Your task to perform on an android device: Clear all items from cart on target. Add "asus rog" to the cart on target Image 0: 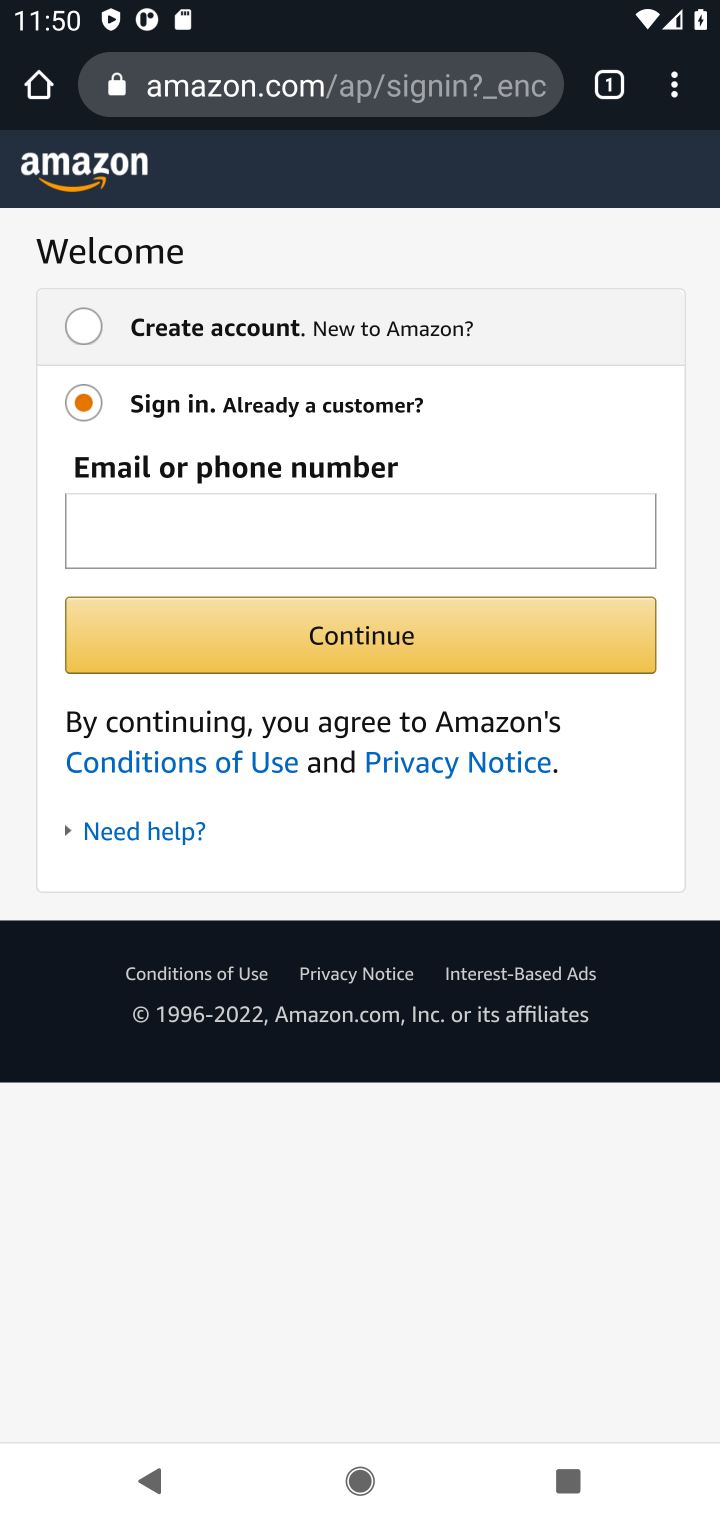
Step 0: click (291, 68)
Your task to perform on an android device: Clear all items from cart on target. Add "asus rog" to the cart on target Image 1: 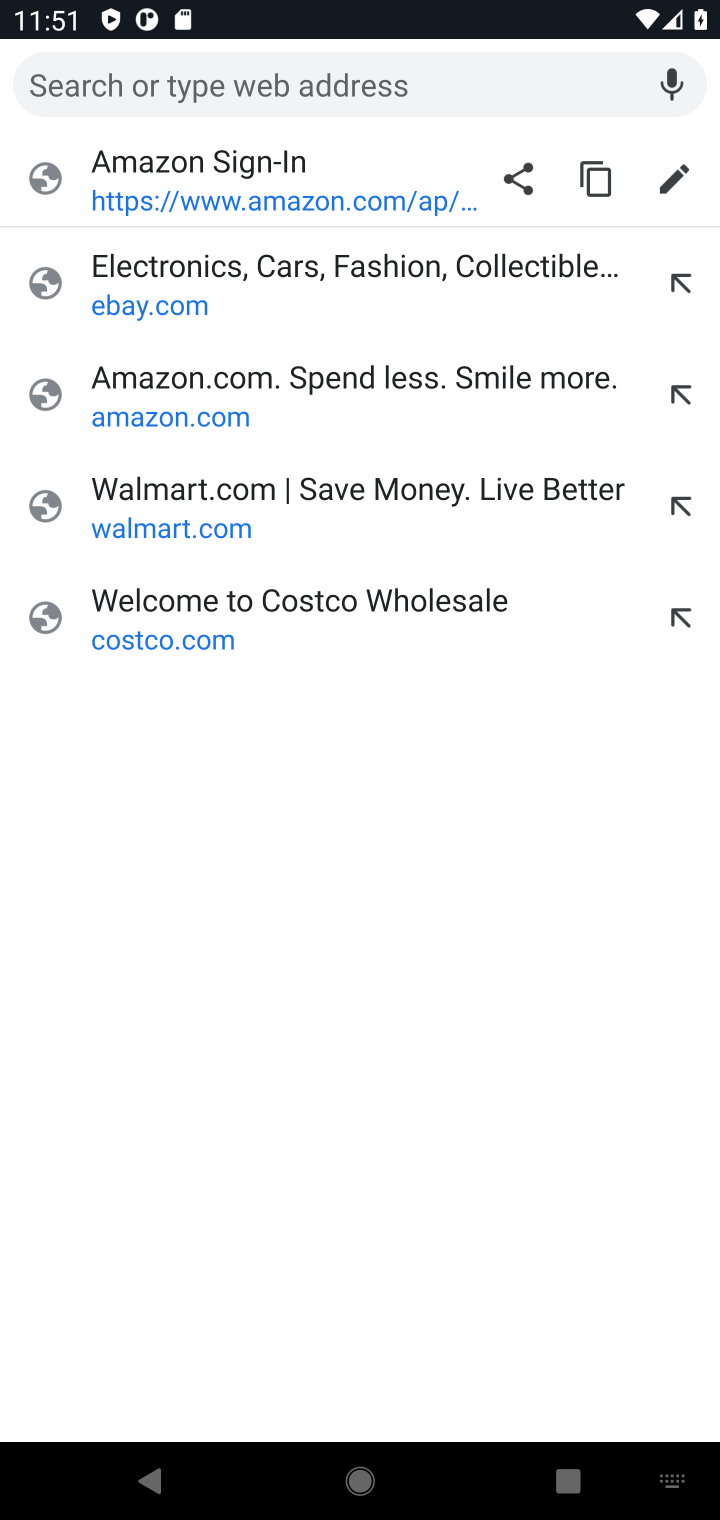
Step 1: type "target"
Your task to perform on an android device: Clear all items from cart on target. Add "asus rog" to the cart on target Image 2: 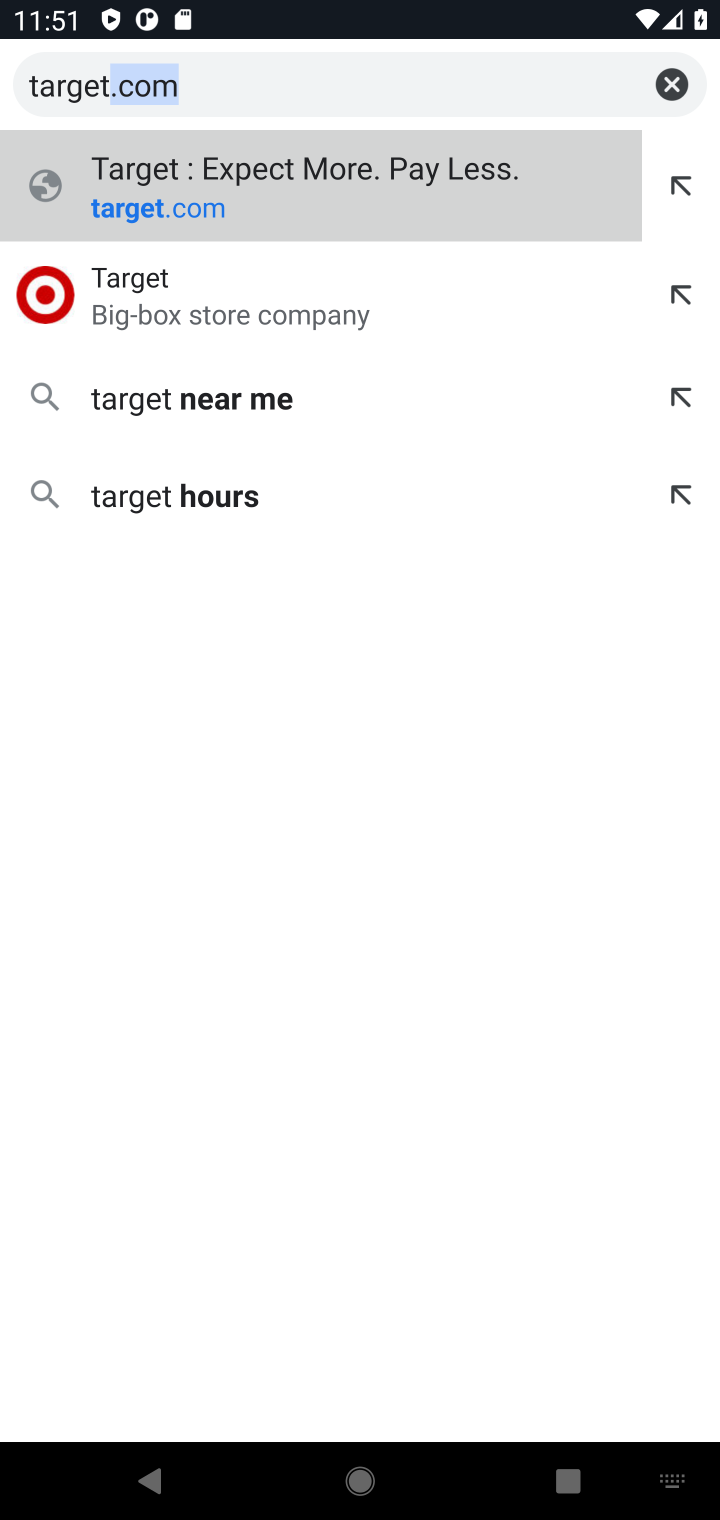
Step 2: click (470, 87)
Your task to perform on an android device: Clear all items from cart on target. Add "asus rog" to the cart on target Image 3: 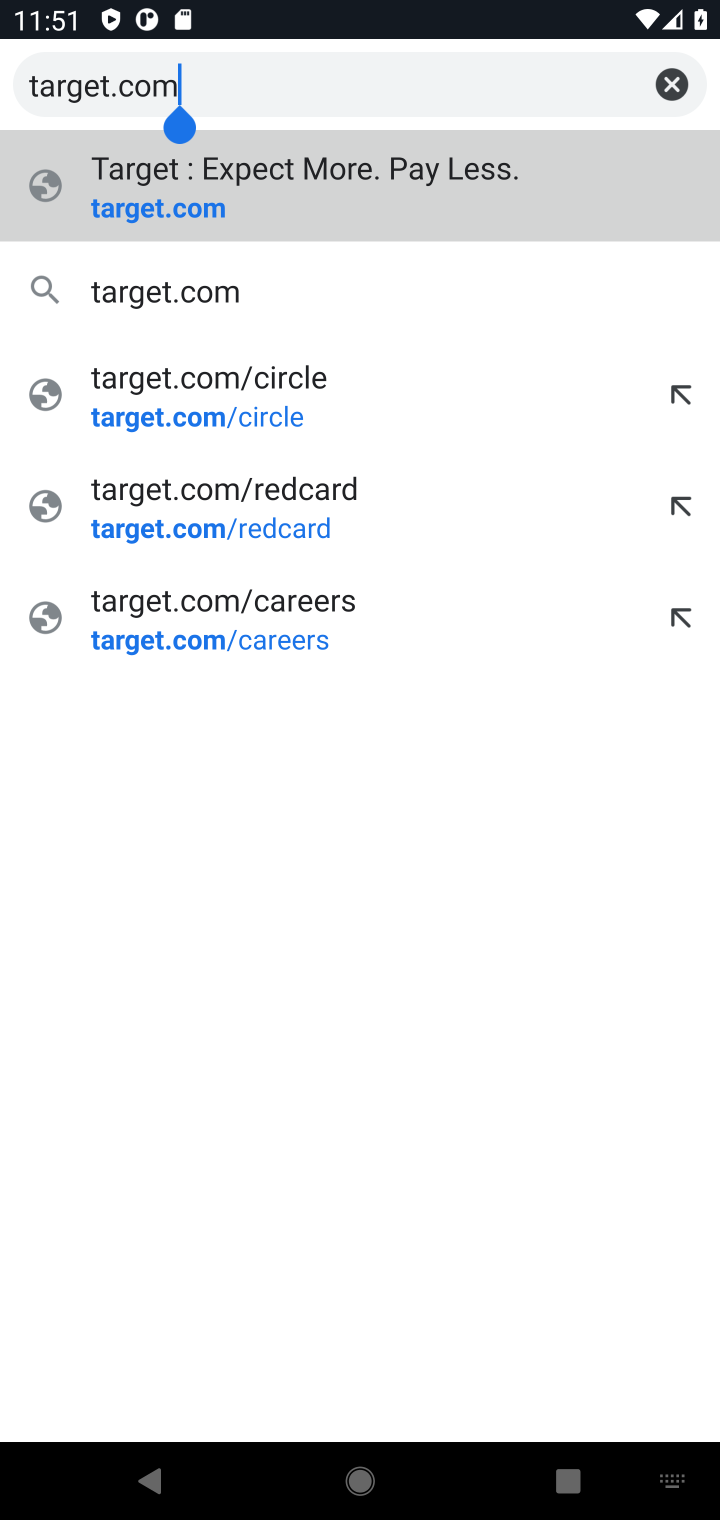
Step 3: click (217, 275)
Your task to perform on an android device: Clear all items from cart on target. Add "asus rog" to the cart on target Image 4: 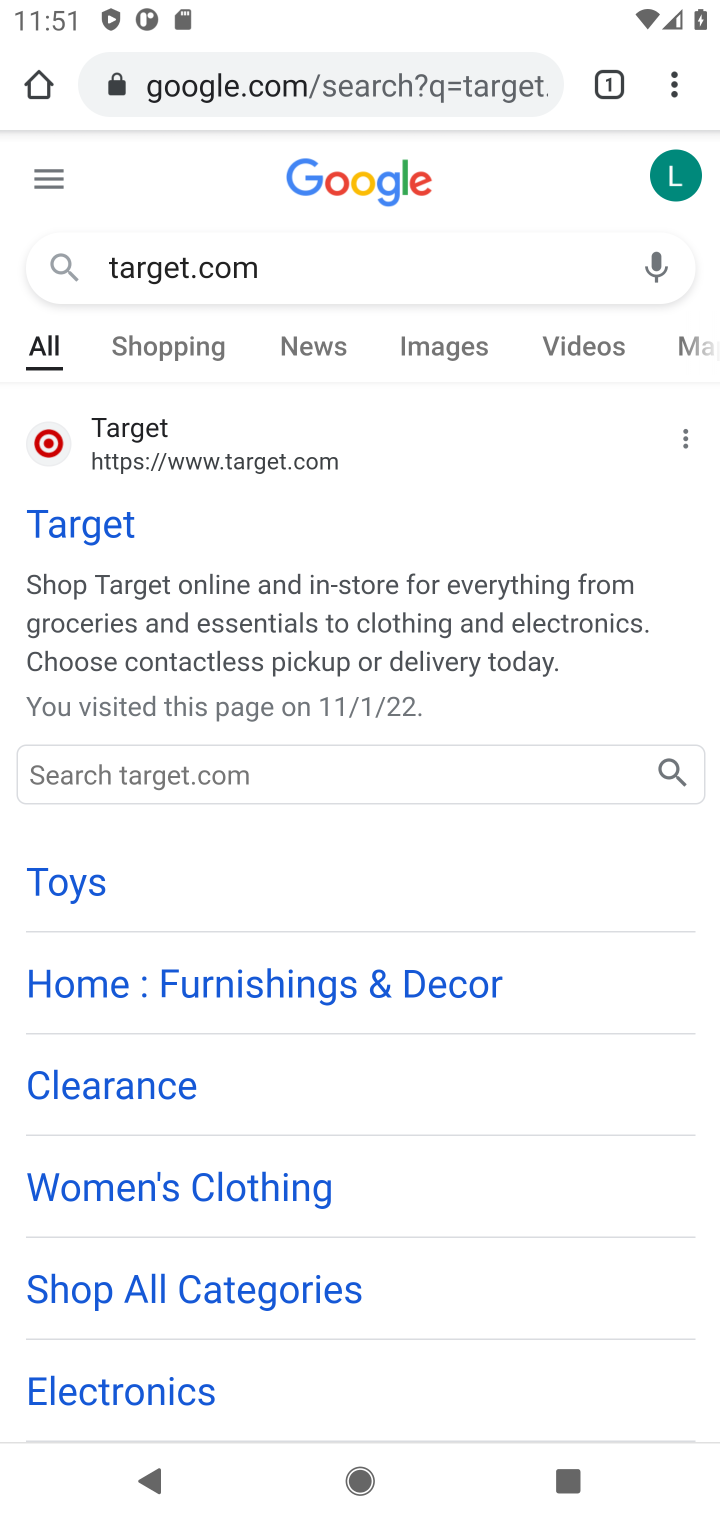
Step 4: click (253, 457)
Your task to perform on an android device: Clear all items from cart on target. Add "asus rog" to the cart on target Image 5: 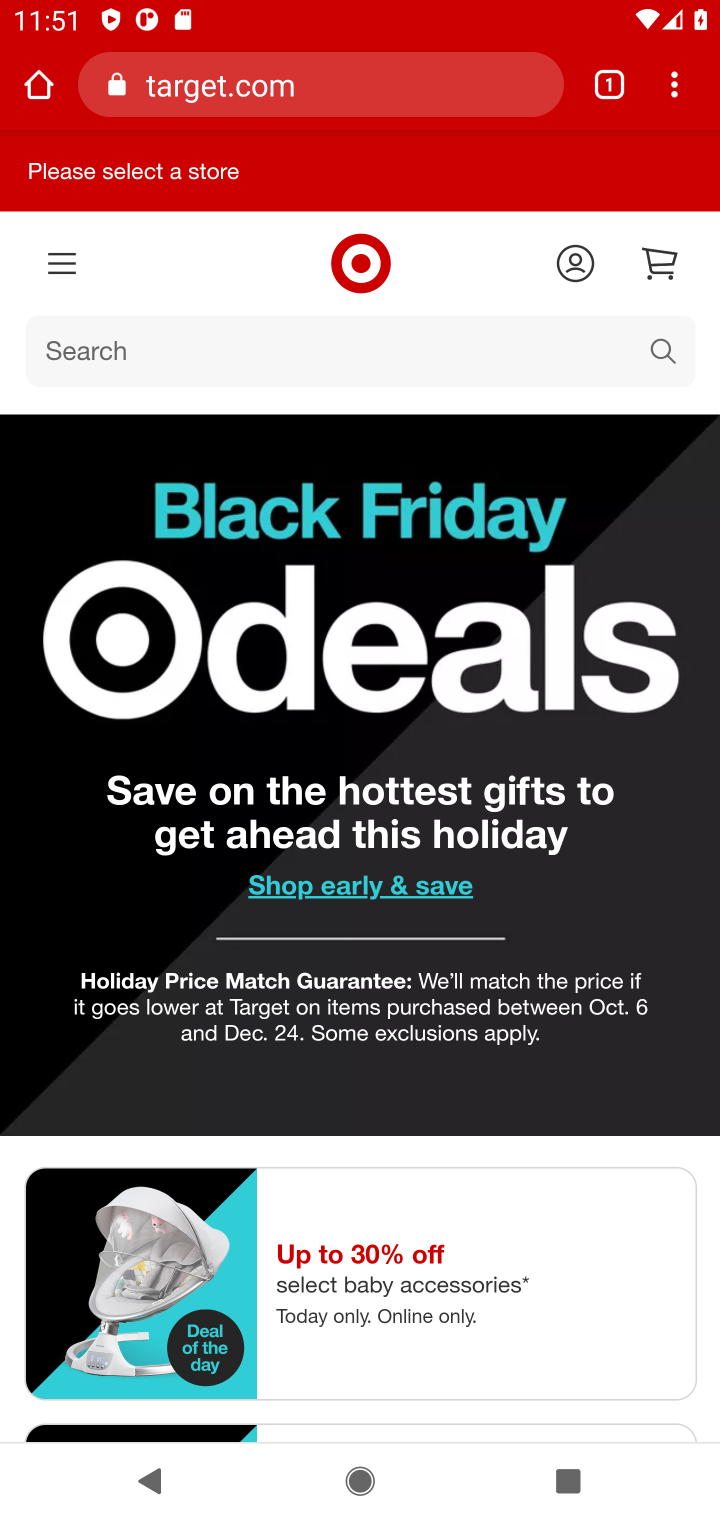
Step 5: click (662, 265)
Your task to perform on an android device: Clear all items from cart on target. Add "asus rog" to the cart on target Image 6: 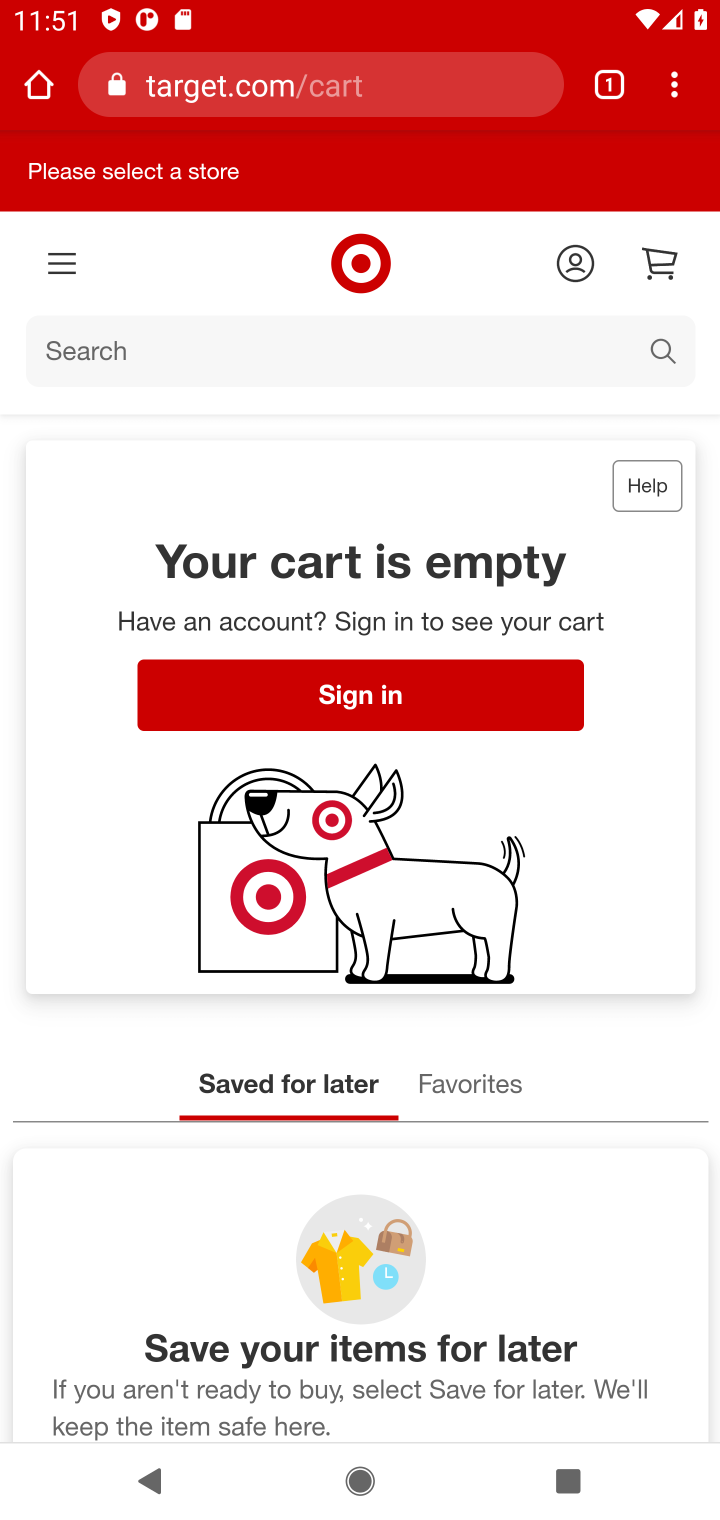
Step 6: click (646, 362)
Your task to perform on an android device: Clear all items from cart on target. Add "asus rog" to the cart on target Image 7: 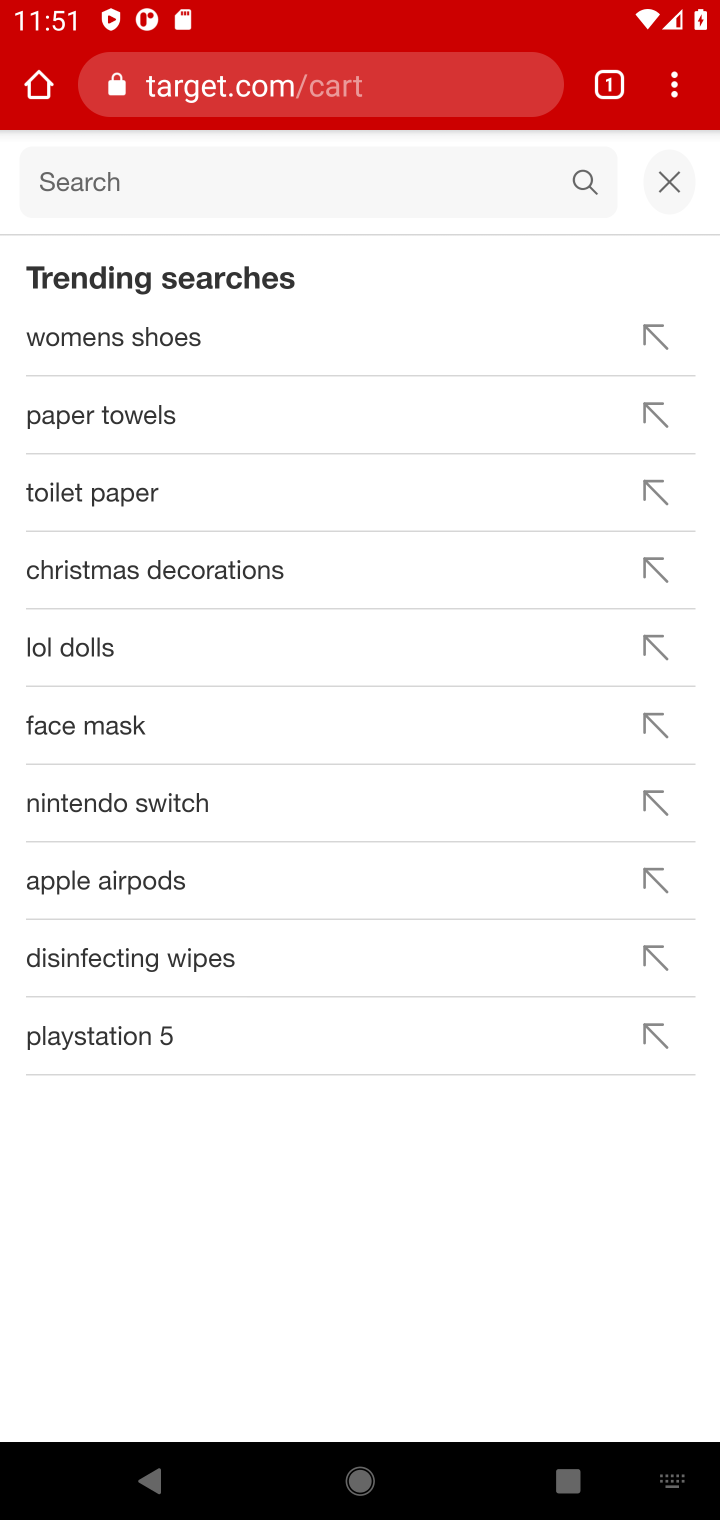
Step 7: press enter
Your task to perform on an android device: Clear all items from cart on target. Add "asus rog" to the cart on target Image 8: 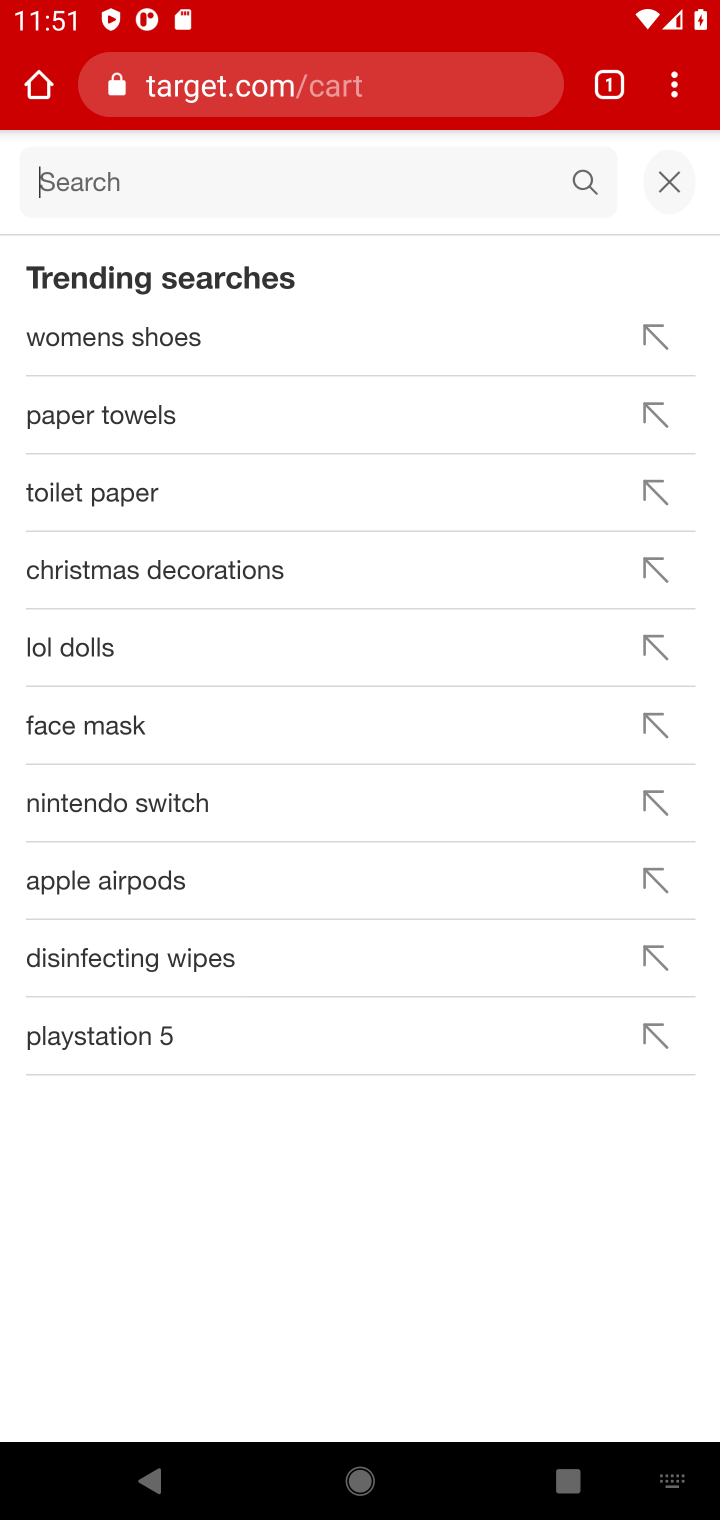
Step 8: type "asus rog"
Your task to perform on an android device: Clear all items from cart on target. Add "asus rog" to the cart on target Image 9: 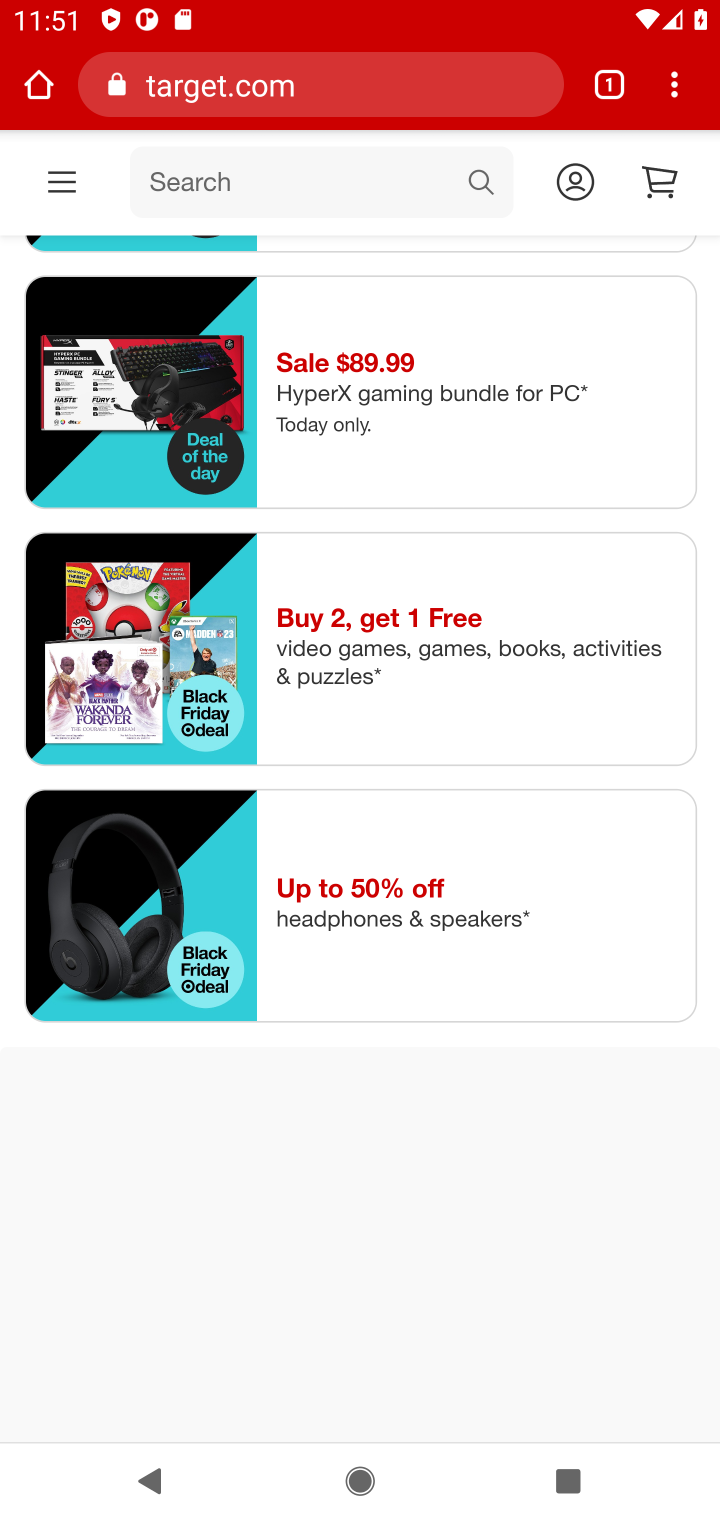
Step 9: click (477, 164)
Your task to perform on an android device: Clear all items from cart on target. Add "asus rog" to the cart on target Image 10: 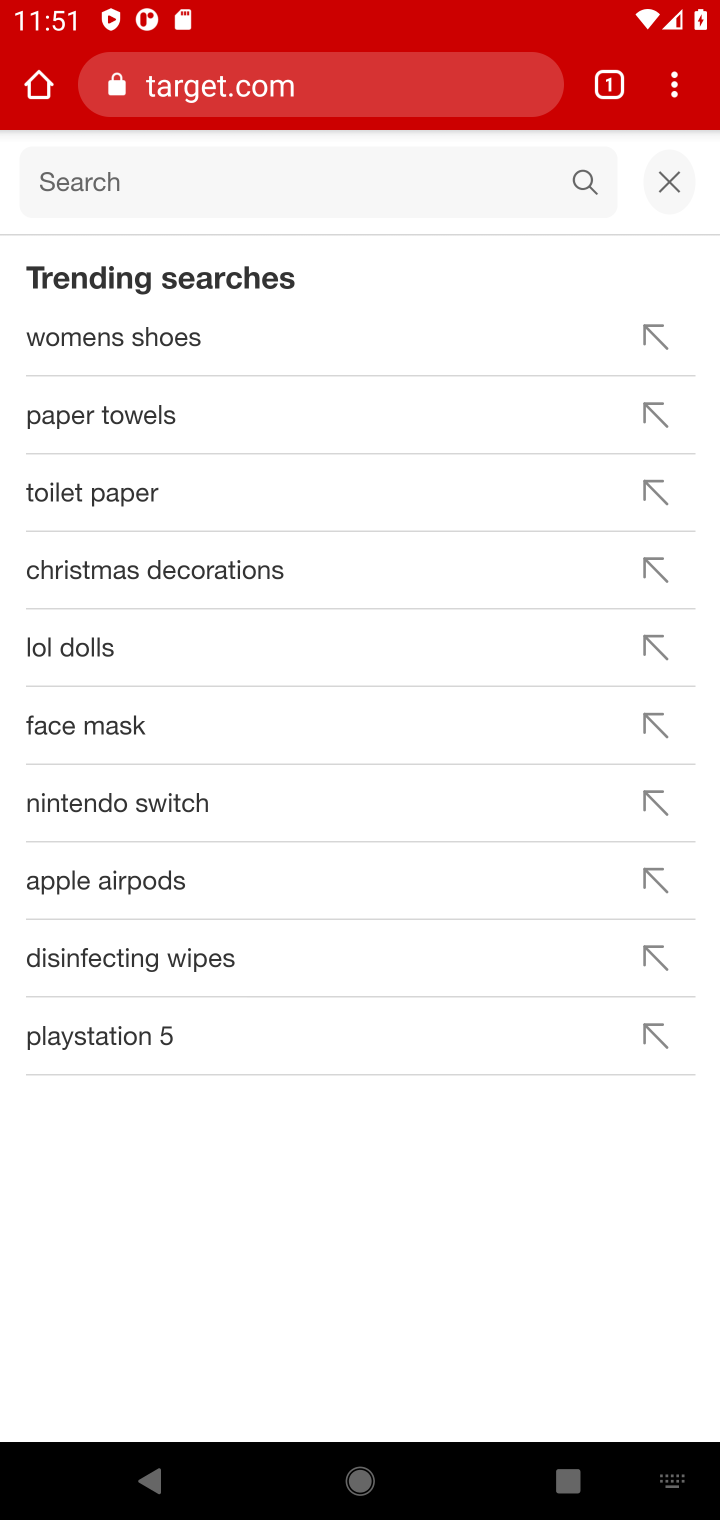
Step 10: type "asus rog"
Your task to perform on an android device: Clear all items from cart on target. Add "asus rog" to the cart on target Image 11: 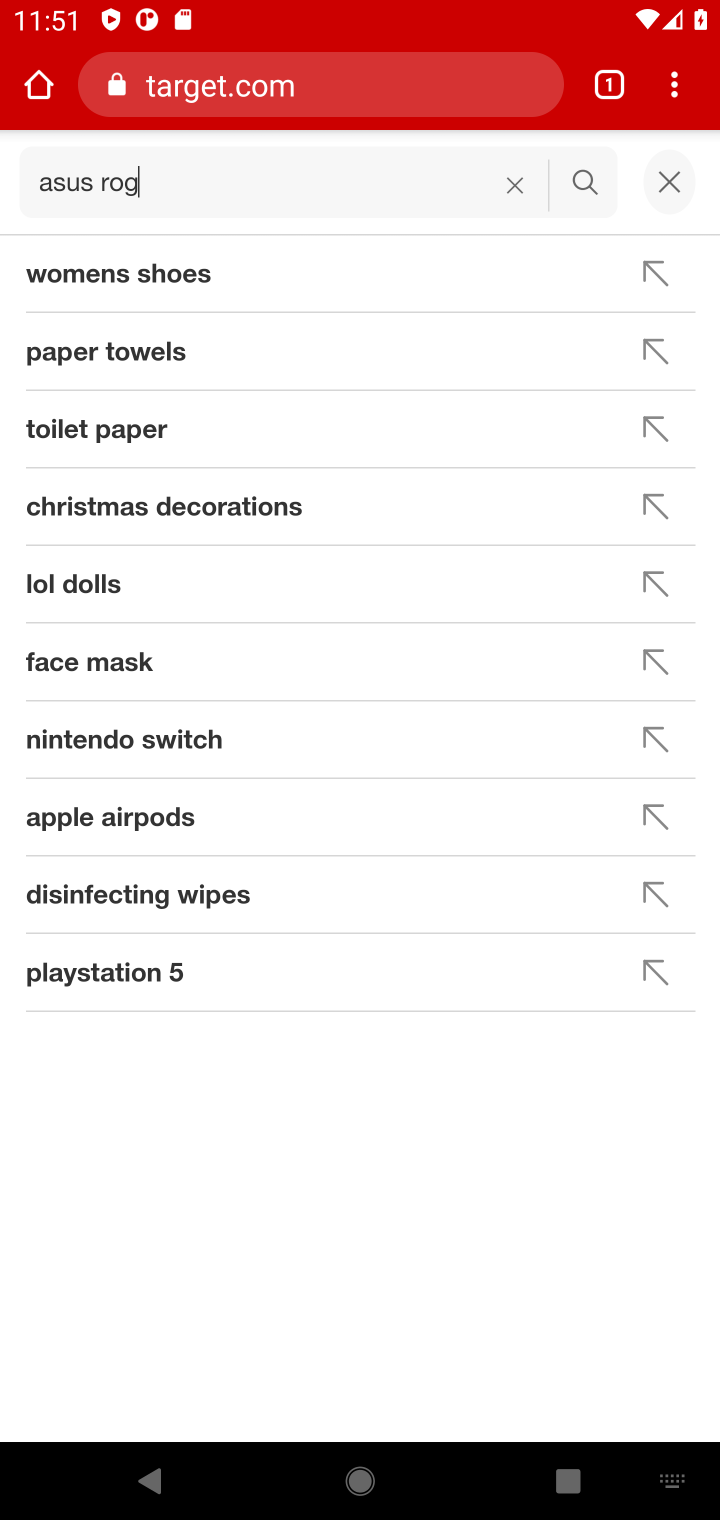
Step 11: press enter
Your task to perform on an android device: Clear all items from cart on target. Add "asus rog" to the cart on target Image 12: 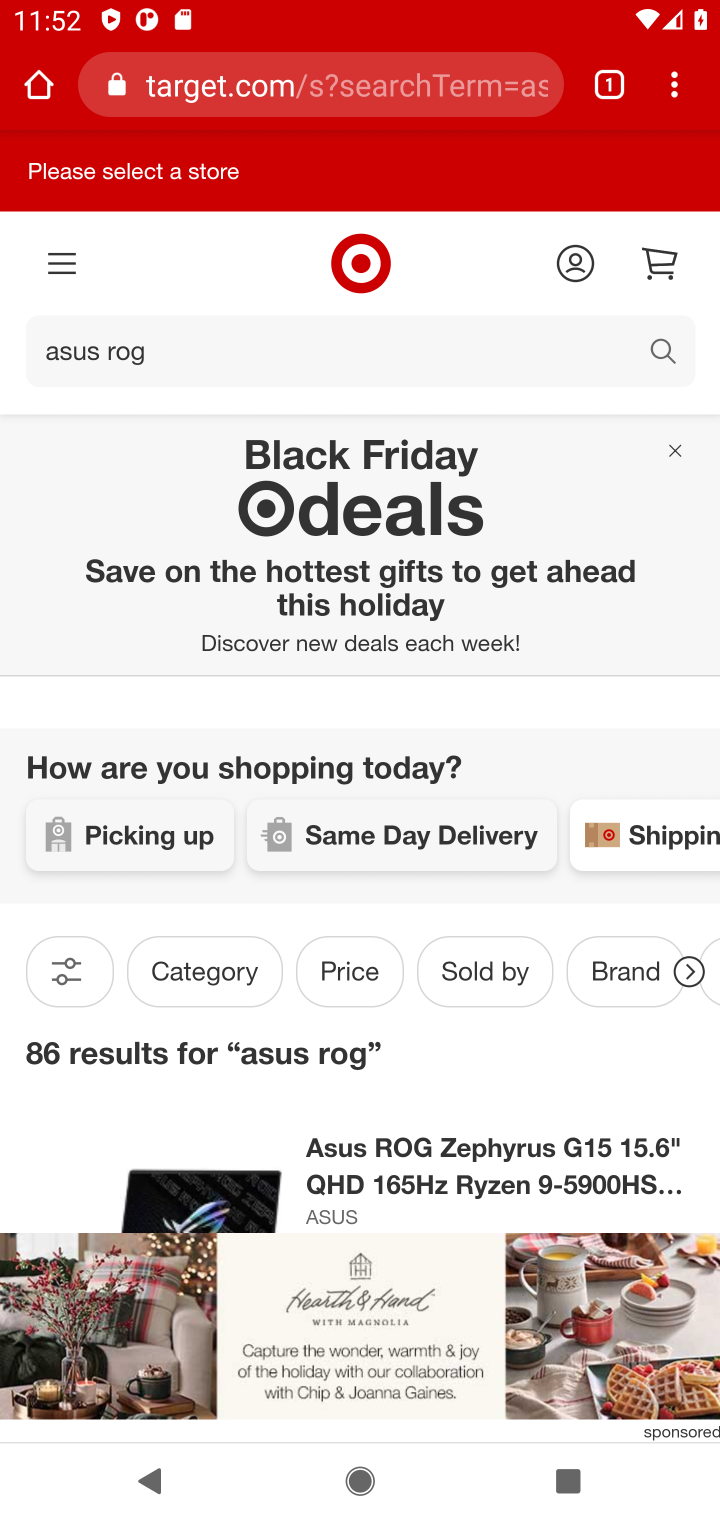
Step 12: drag from (530, 1121) to (596, 563)
Your task to perform on an android device: Clear all items from cart on target. Add "asus rog" to the cart on target Image 13: 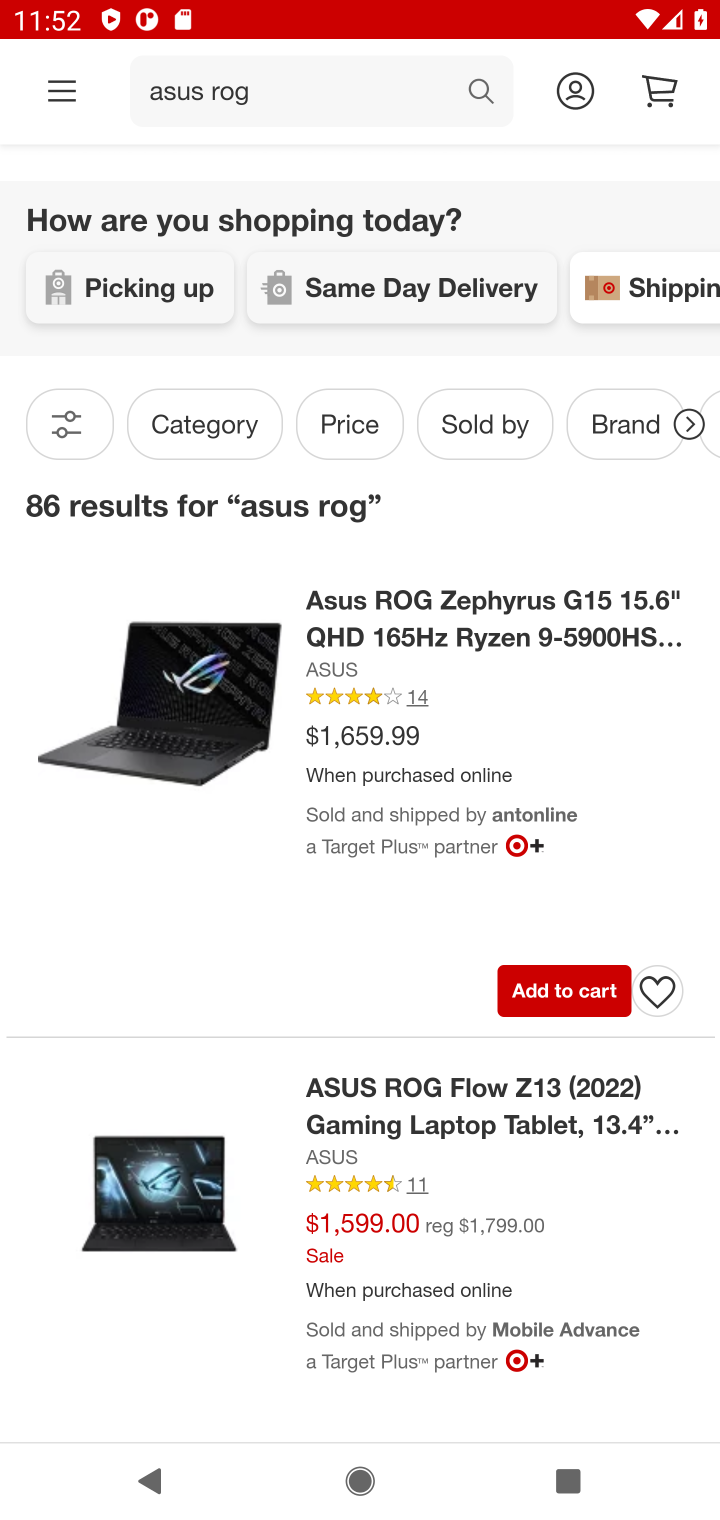
Step 13: click (222, 692)
Your task to perform on an android device: Clear all items from cart on target. Add "asus rog" to the cart on target Image 14: 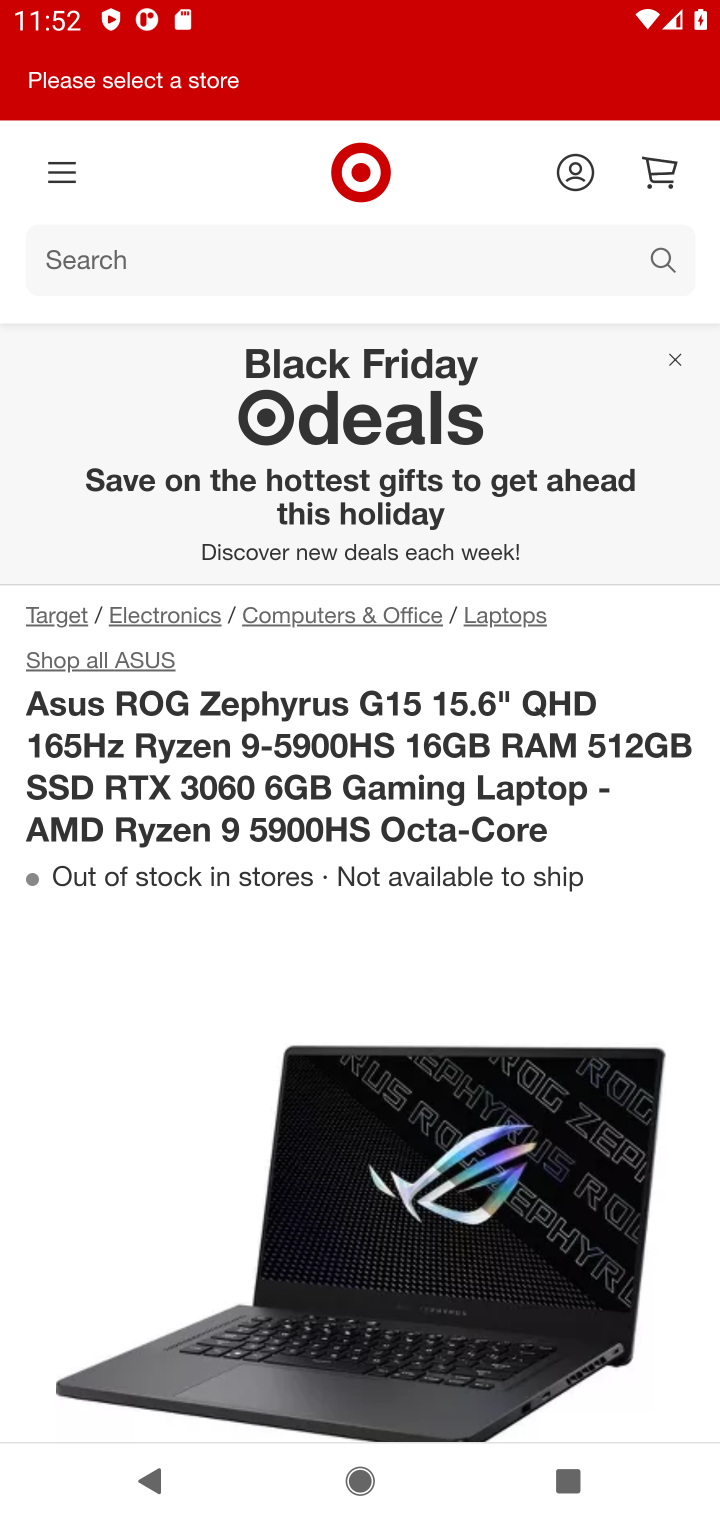
Step 14: drag from (141, 591) to (187, 415)
Your task to perform on an android device: Clear all items from cart on target. Add "asus rog" to the cart on target Image 15: 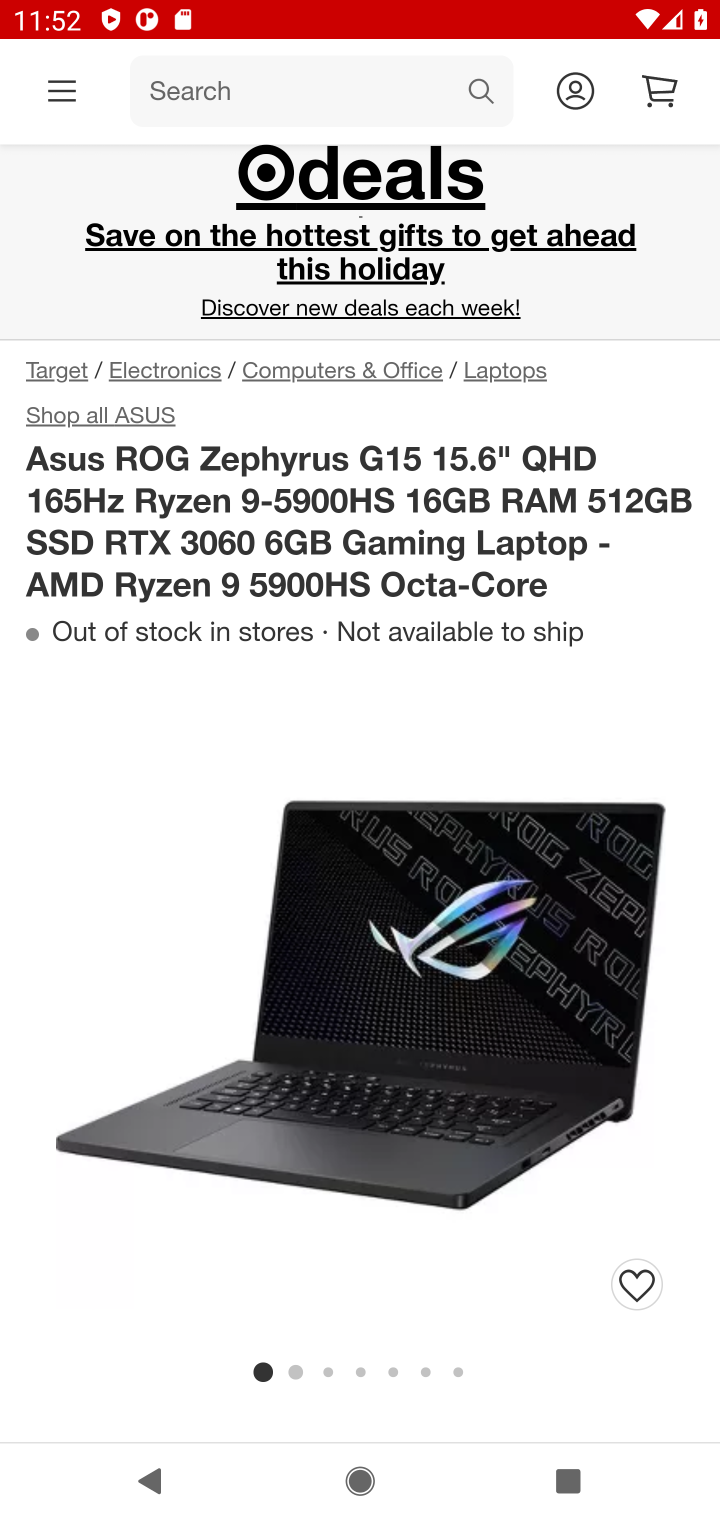
Step 15: drag from (235, 1007) to (263, 465)
Your task to perform on an android device: Clear all items from cart on target. Add "asus rog" to the cart on target Image 16: 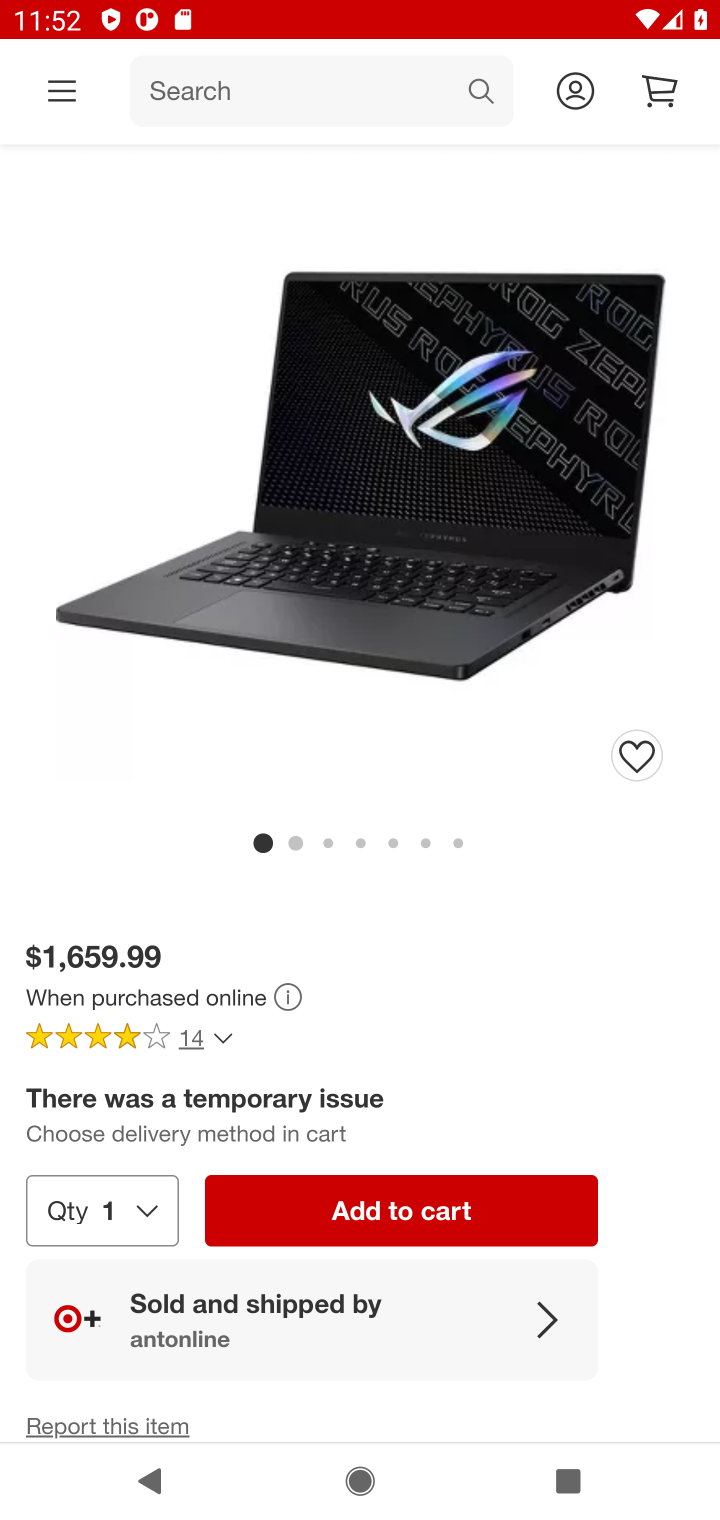
Step 16: click (431, 1207)
Your task to perform on an android device: Clear all items from cart on target. Add "asus rog" to the cart on target Image 17: 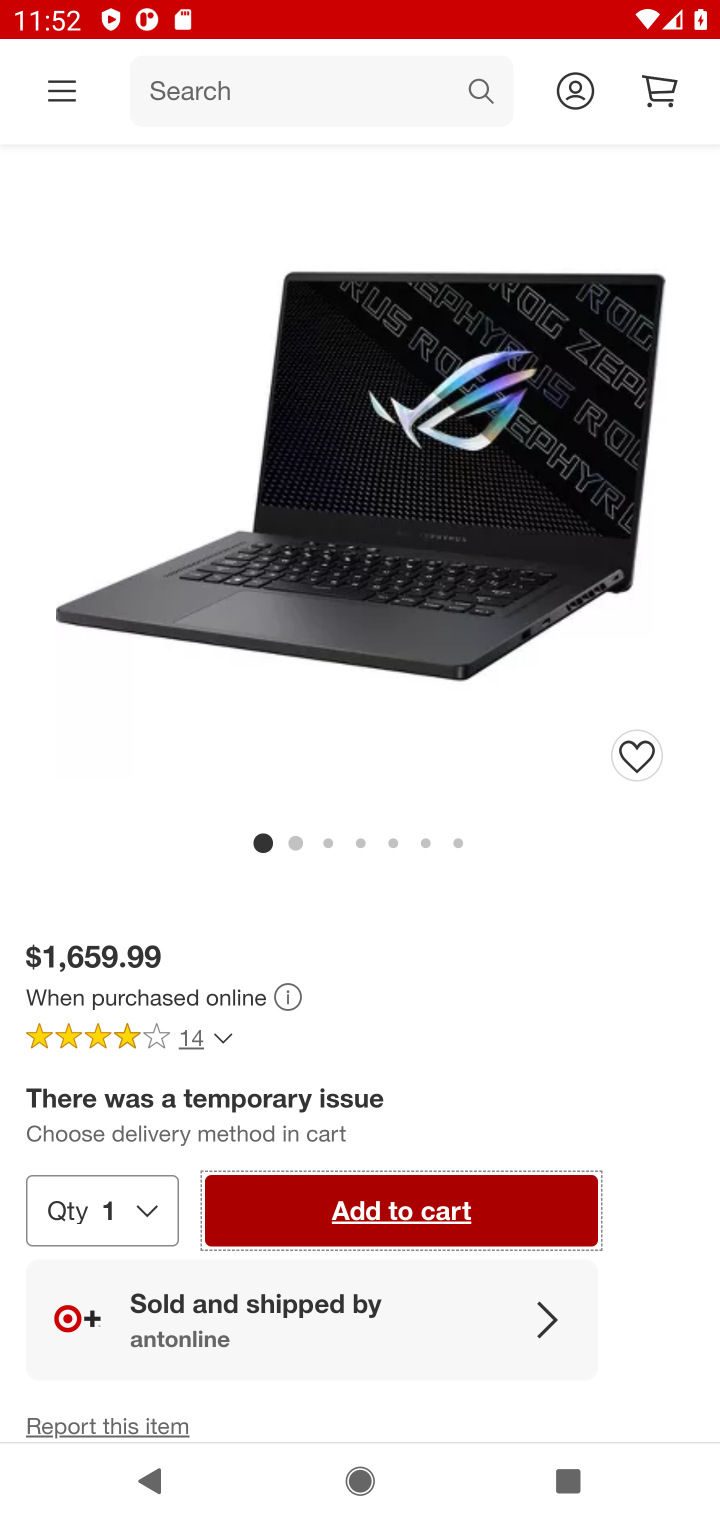
Step 17: click (403, 1211)
Your task to perform on an android device: Clear all items from cart on target. Add "asus rog" to the cart on target Image 18: 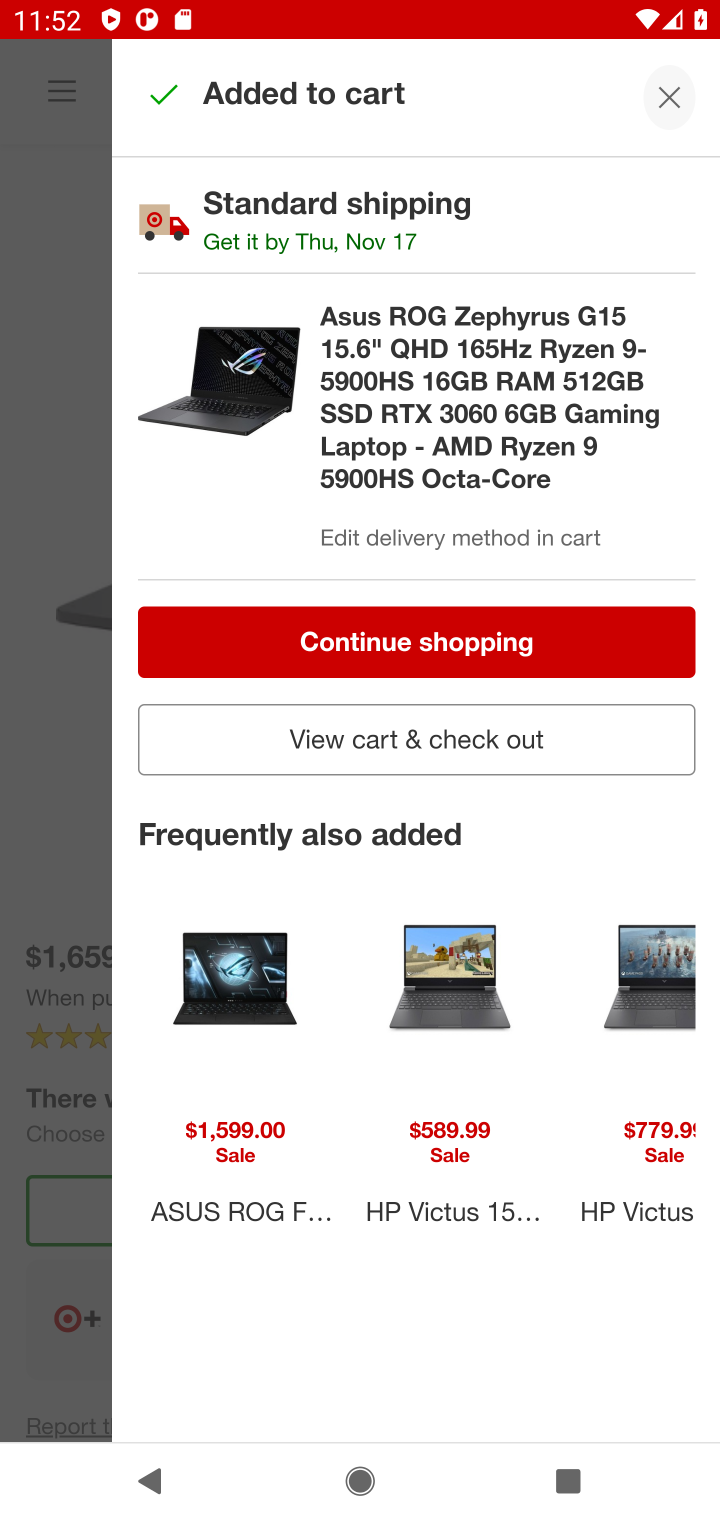
Step 18: task complete